Your task to perform on an android device: Turn off the flashlight Image 0: 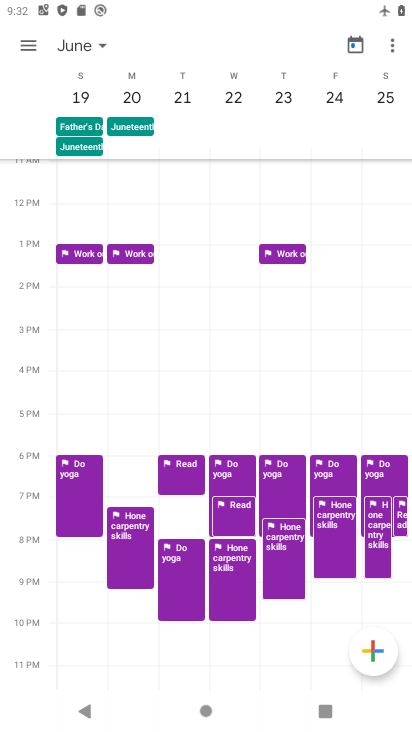
Step 0: press home button
Your task to perform on an android device: Turn off the flashlight Image 1: 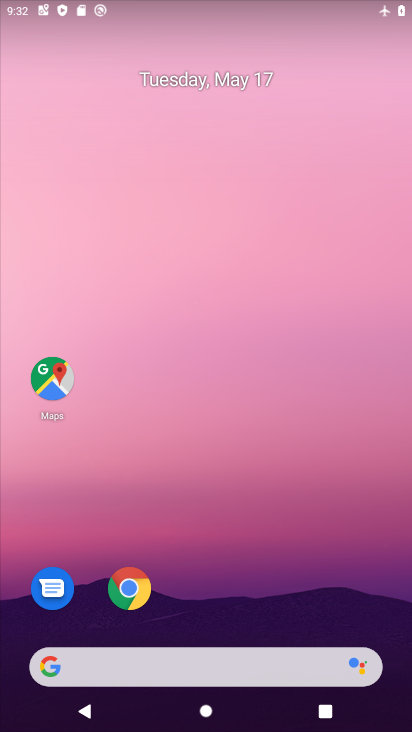
Step 1: drag from (226, 628) to (334, 27)
Your task to perform on an android device: Turn off the flashlight Image 2: 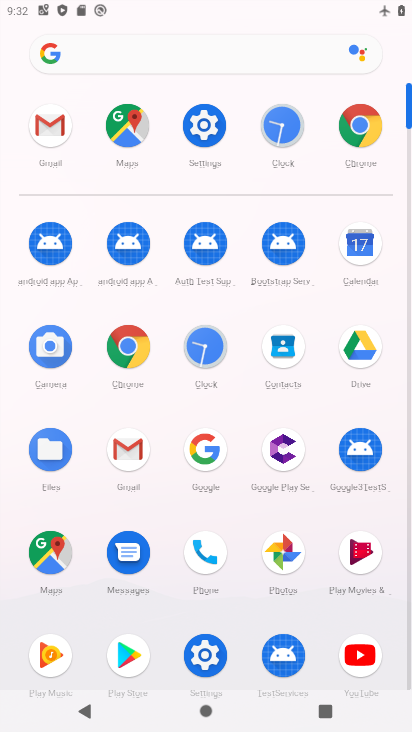
Step 2: click (206, 124)
Your task to perform on an android device: Turn off the flashlight Image 3: 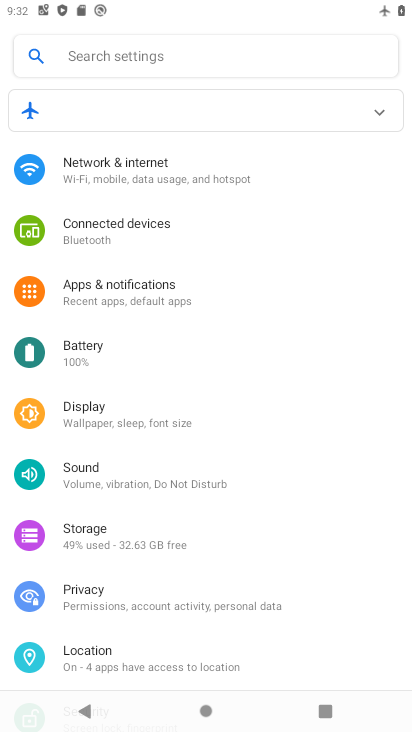
Step 3: task complete